Your task to perform on an android device: turn off location Image 0: 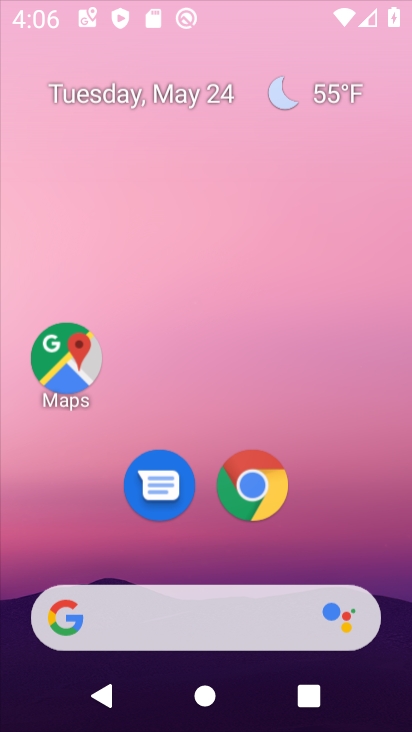
Step 0: click (251, 490)
Your task to perform on an android device: turn off location Image 1: 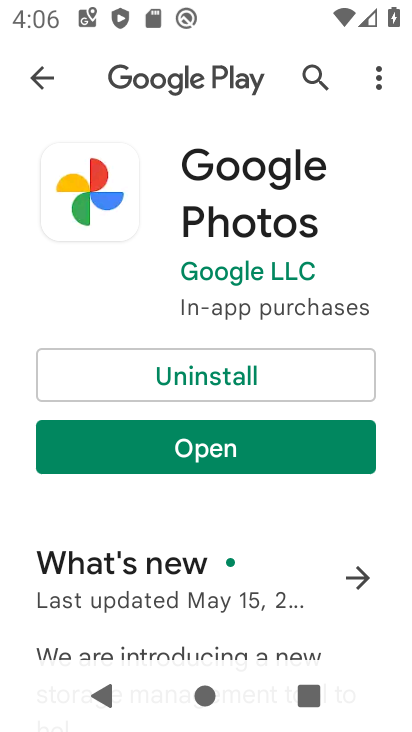
Step 1: press home button
Your task to perform on an android device: turn off location Image 2: 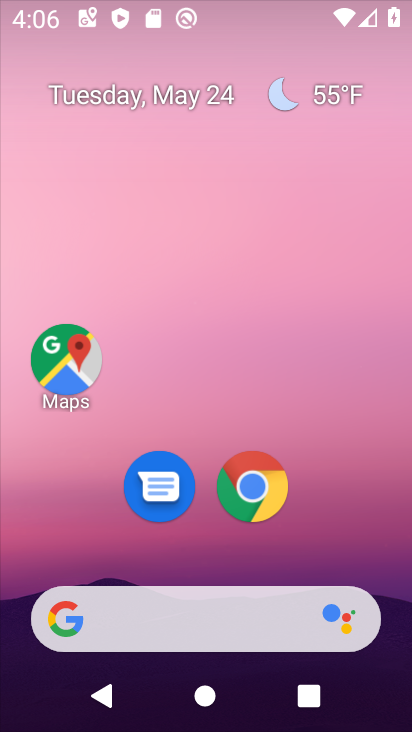
Step 2: drag from (327, 495) to (298, 152)
Your task to perform on an android device: turn off location Image 3: 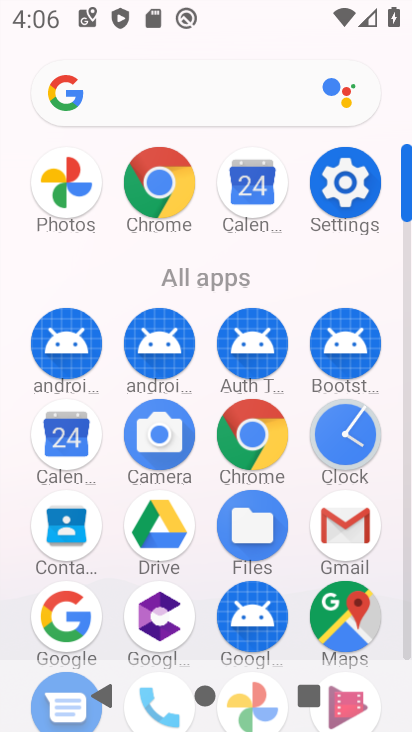
Step 3: click (362, 185)
Your task to perform on an android device: turn off location Image 4: 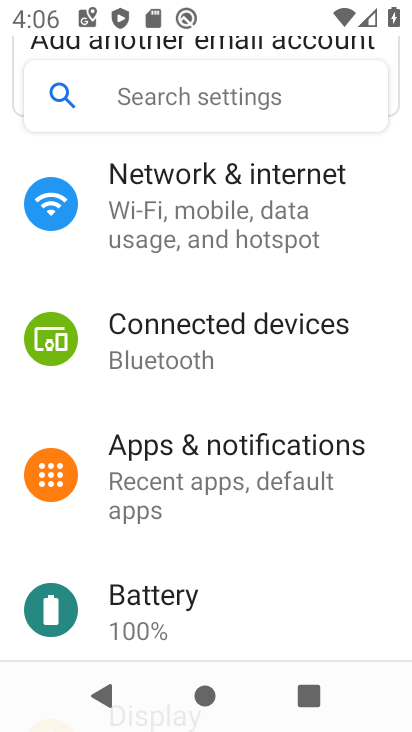
Step 4: drag from (196, 518) to (190, 144)
Your task to perform on an android device: turn off location Image 5: 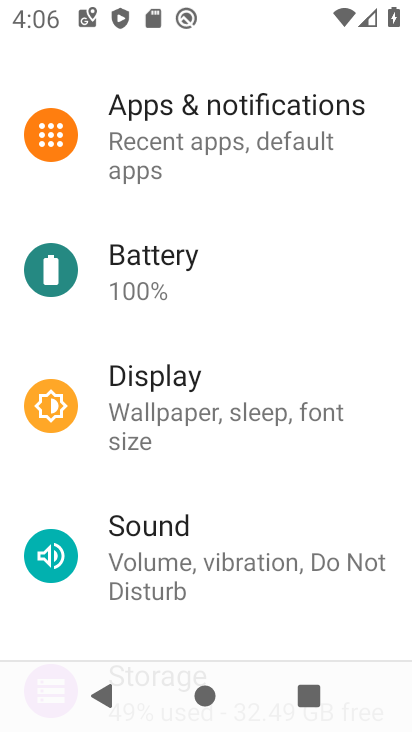
Step 5: drag from (210, 441) to (233, 242)
Your task to perform on an android device: turn off location Image 6: 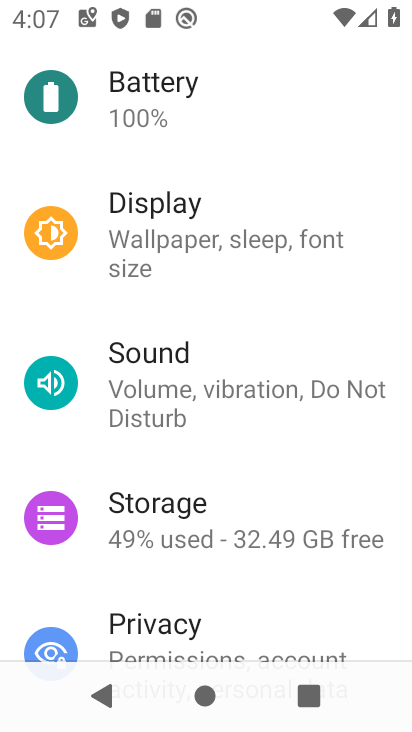
Step 6: drag from (220, 473) to (220, 275)
Your task to perform on an android device: turn off location Image 7: 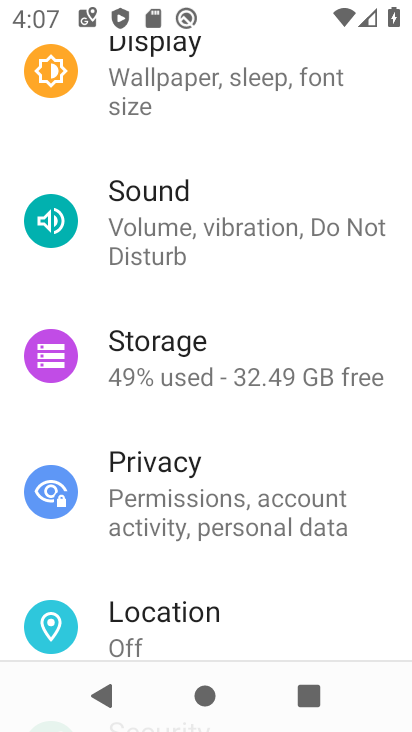
Step 7: drag from (240, 499) to (233, 288)
Your task to perform on an android device: turn off location Image 8: 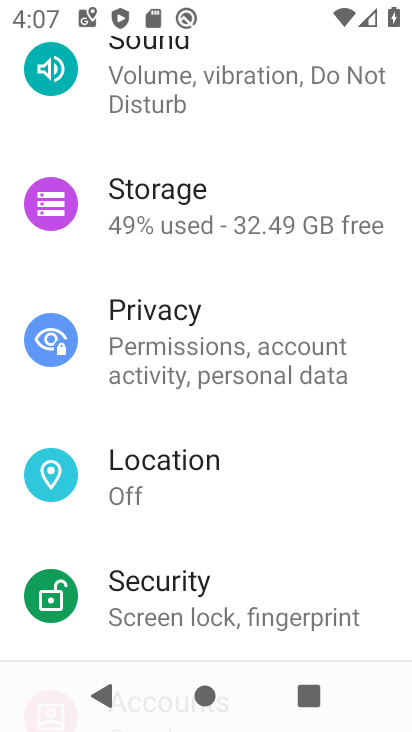
Step 8: click (212, 469)
Your task to perform on an android device: turn off location Image 9: 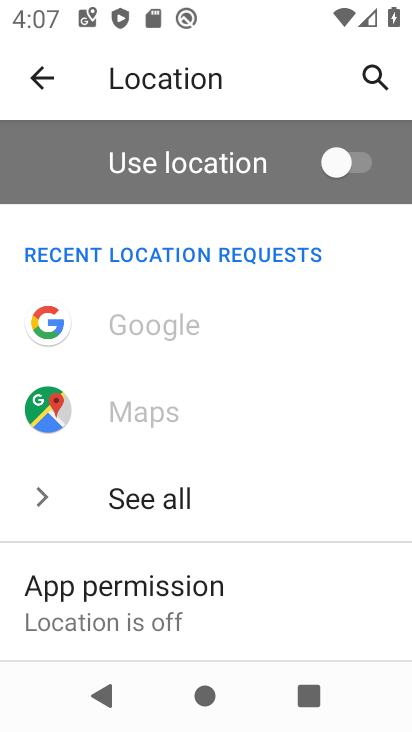
Step 9: task complete